Your task to perform on an android device: Open Google Chrome Image 0: 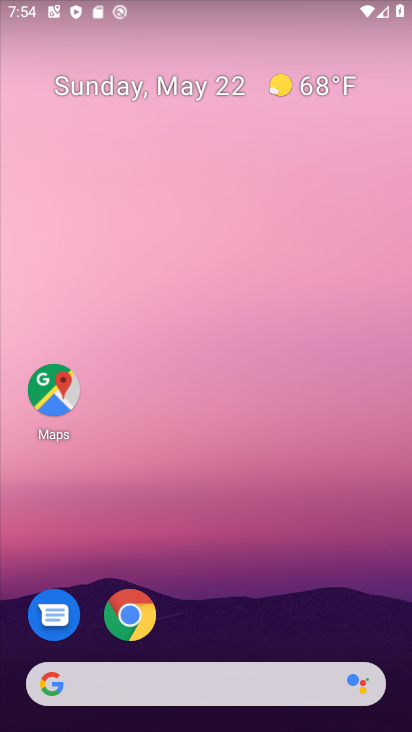
Step 0: click (123, 590)
Your task to perform on an android device: Open Google Chrome Image 1: 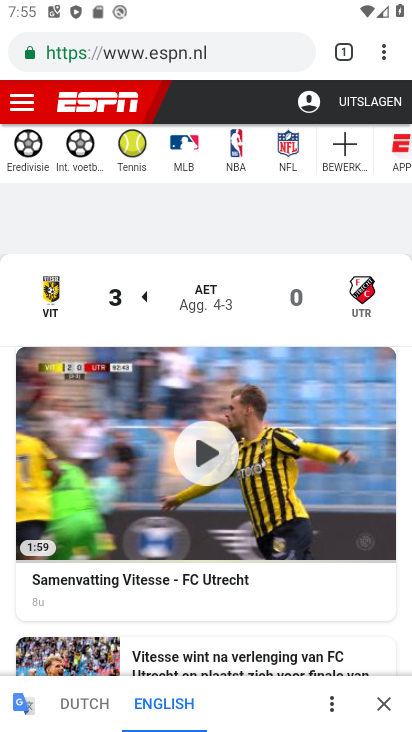
Step 1: task complete